Your task to perform on an android device: Open Yahoo.com Image 0: 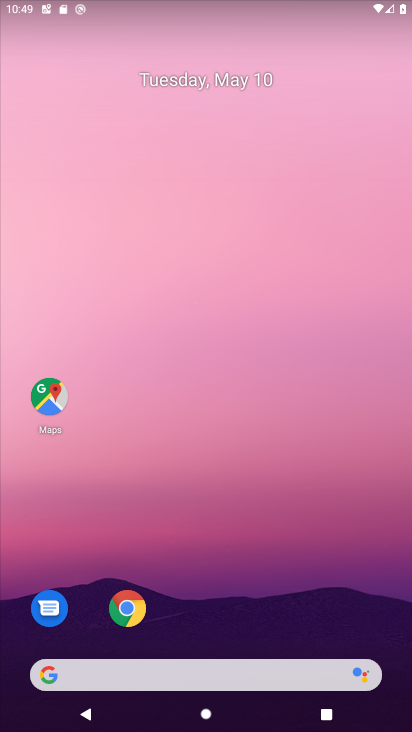
Step 0: click (138, 622)
Your task to perform on an android device: Open Yahoo.com Image 1: 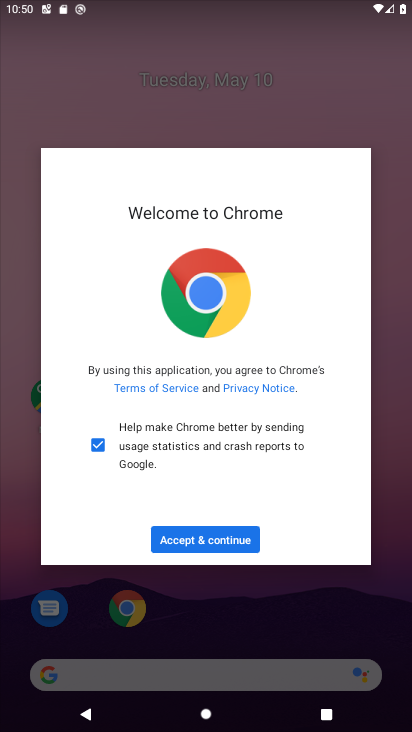
Step 1: click (218, 540)
Your task to perform on an android device: Open Yahoo.com Image 2: 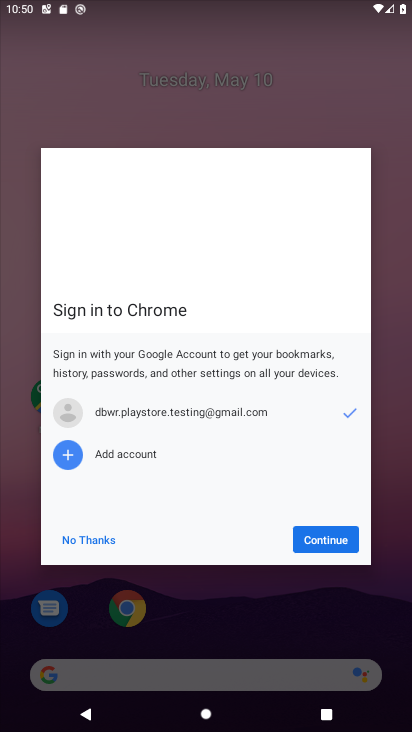
Step 2: click (324, 533)
Your task to perform on an android device: Open Yahoo.com Image 3: 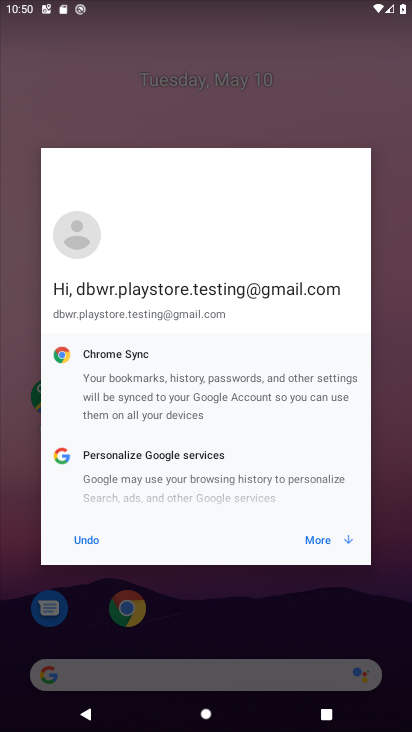
Step 3: click (324, 533)
Your task to perform on an android device: Open Yahoo.com Image 4: 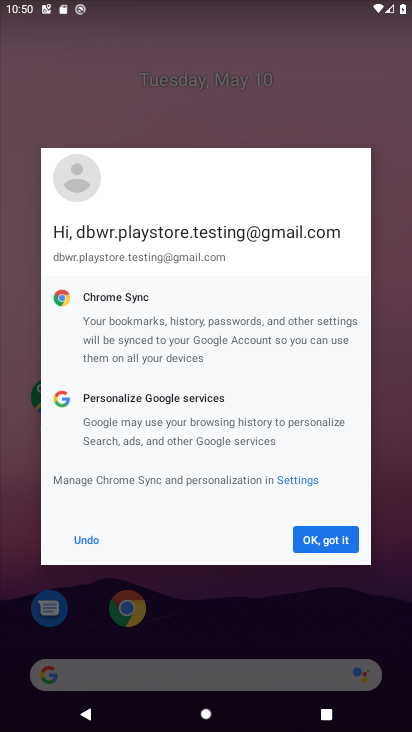
Step 4: click (318, 542)
Your task to perform on an android device: Open Yahoo.com Image 5: 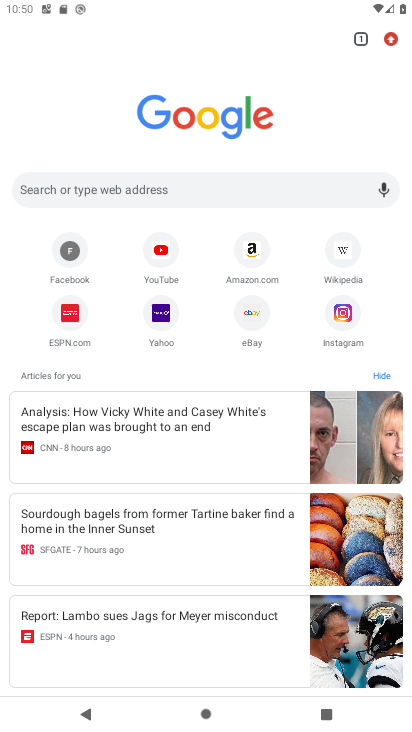
Step 5: click (159, 324)
Your task to perform on an android device: Open Yahoo.com Image 6: 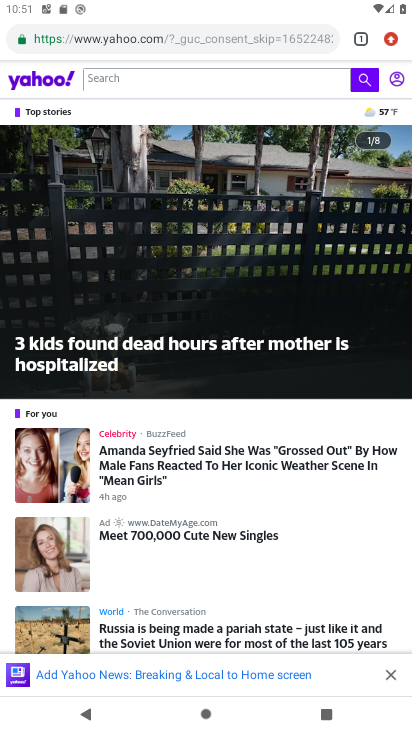
Step 6: task complete